Your task to perform on an android device: turn on notifications settings in the gmail app Image 0: 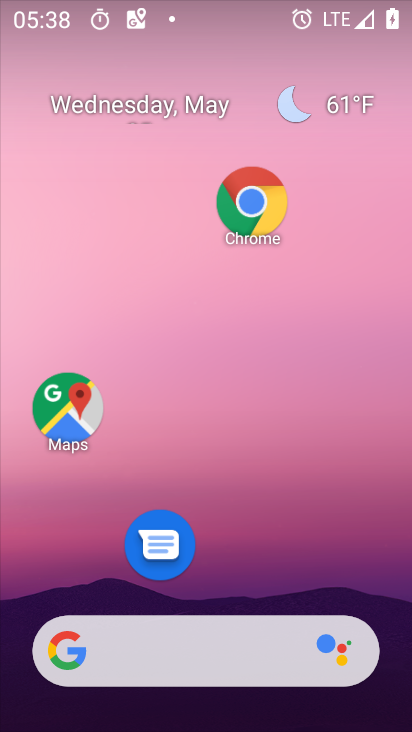
Step 0: drag from (245, 623) to (215, 209)
Your task to perform on an android device: turn on notifications settings in the gmail app Image 1: 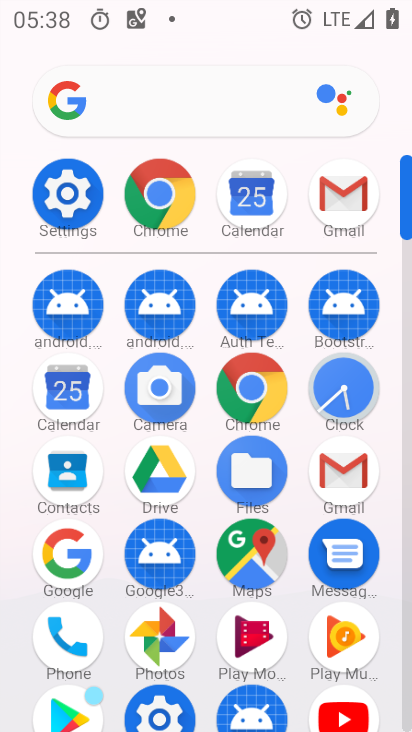
Step 1: click (350, 207)
Your task to perform on an android device: turn on notifications settings in the gmail app Image 2: 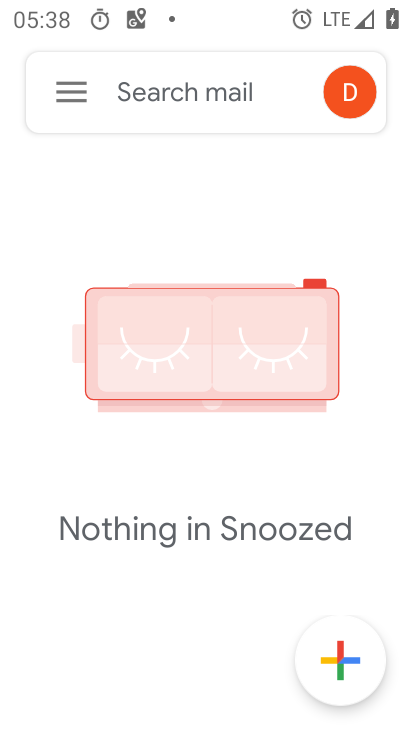
Step 2: click (84, 94)
Your task to perform on an android device: turn on notifications settings in the gmail app Image 3: 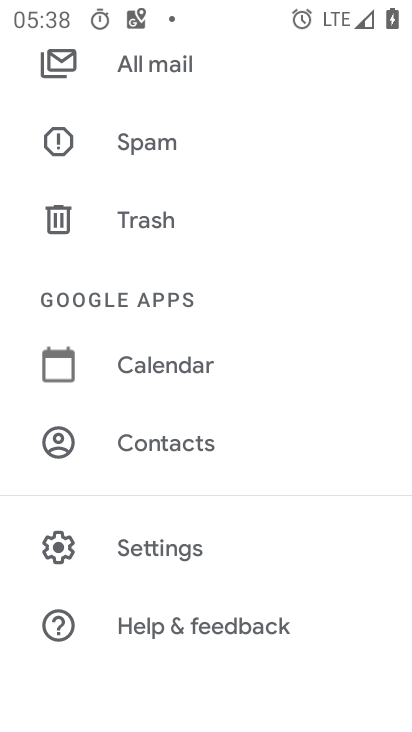
Step 3: click (170, 552)
Your task to perform on an android device: turn on notifications settings in the gmail app Image 4: 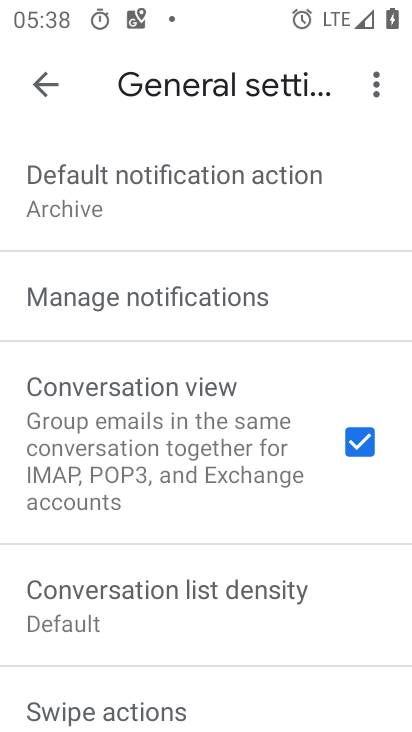
Step 4: click (156, 286)
Your task to perform on an android device: turn on notifications settings in the gmail app Image 5: 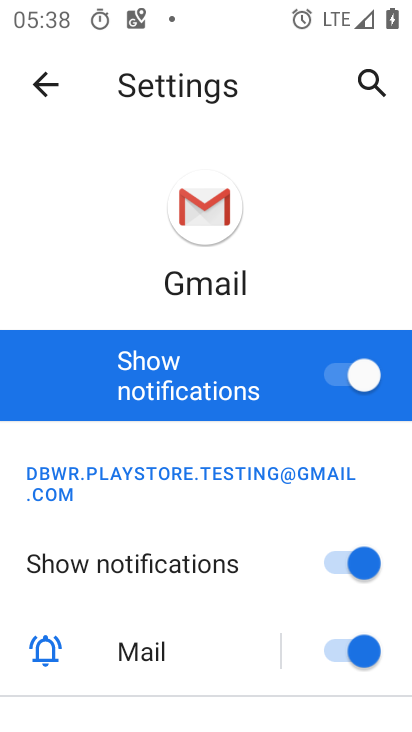
Step 5: task complete